Your task to perform on an android device: Open the phone app and click the voicemail tab. Image 0: 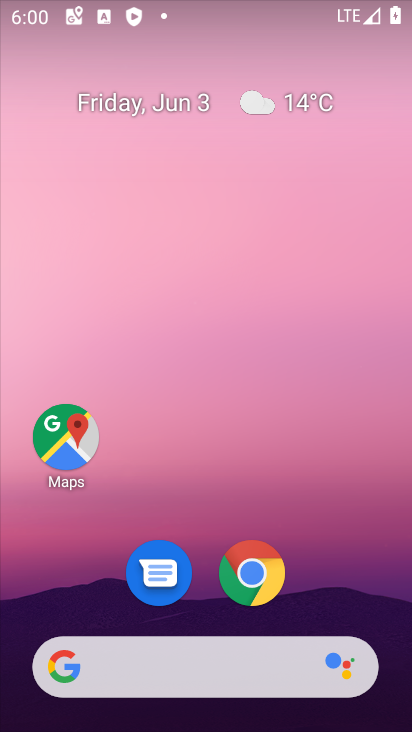
Step 0: drag from (284, 699) to (367, 7)
Your task to perform on an android device: Open the phone app and click the voicemail tab. Image 1: 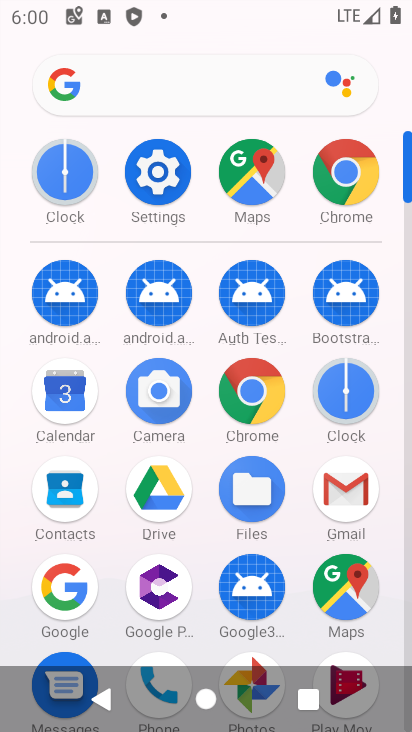
Step 1: drag from (200, 631) to (216, 350)
Your task to perform on an android device: Open the phone app and click the voicemail tab. Image 2: 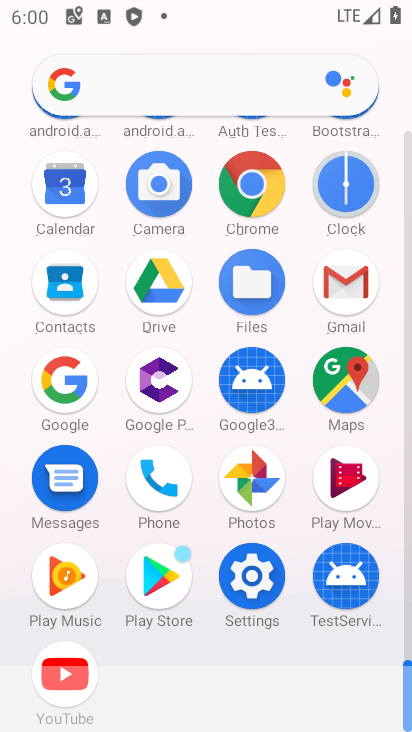
Step 2: click (172, 483)
Your task to perform on an android device: Open the phone app and click the voicemail tab. Image 3: 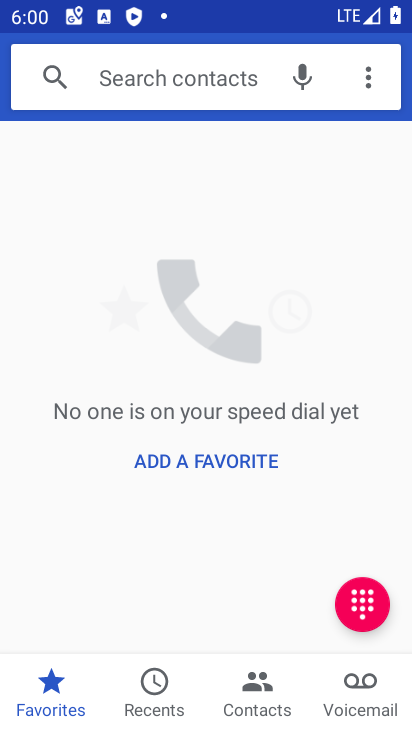
Step 3: click (372, 700)
Your task to perform on an android device: Open the phone app and click the voicemail tab. Image 4: 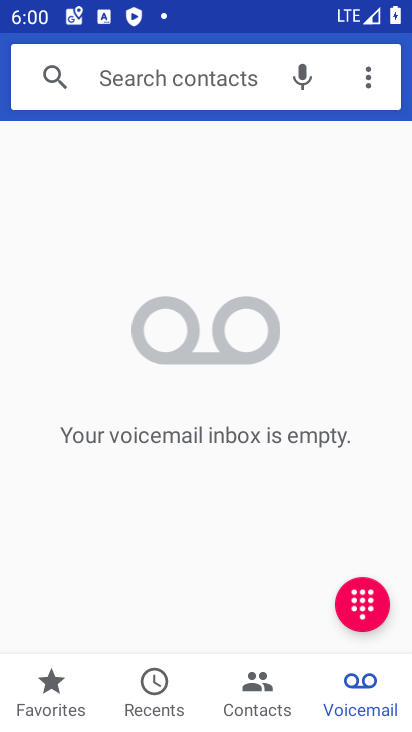
Step 4: task complete